Your task to perform on an android device: find which apps use the phone's location Image 0: 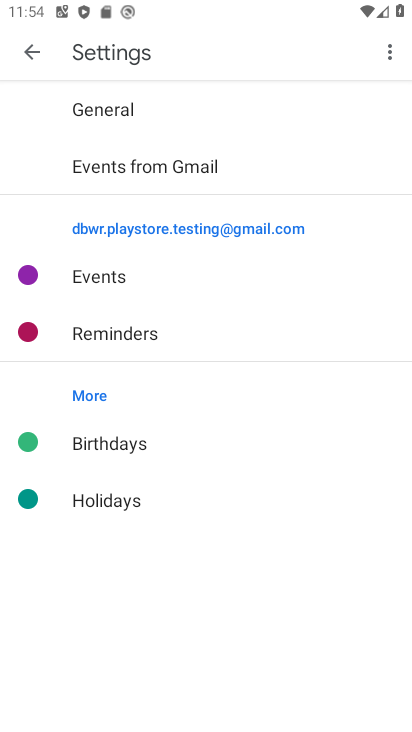
Step 0: task complete